Your task to perform on an android device: turn off location history Image 0: 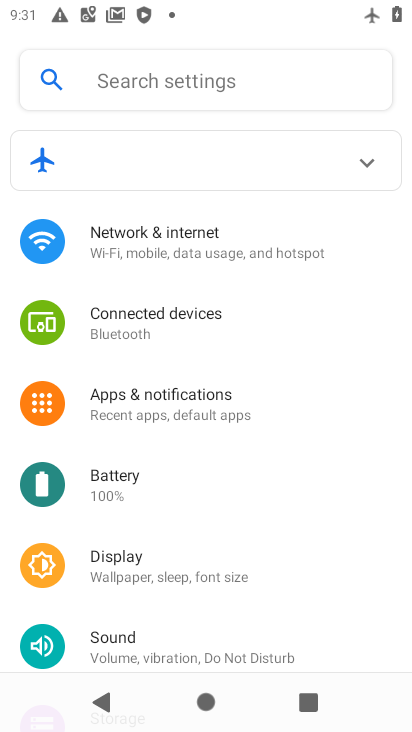
Step 0: drag from (176, 650) to (176, 228)
Your task to perform on an android device: turn off location history Image 1: 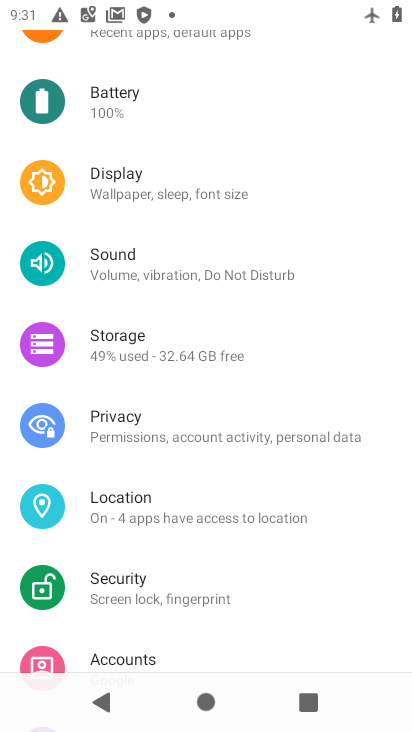
Step 1: click (152, 506)
Your task to perform on an android device: turn off location history Image 2: 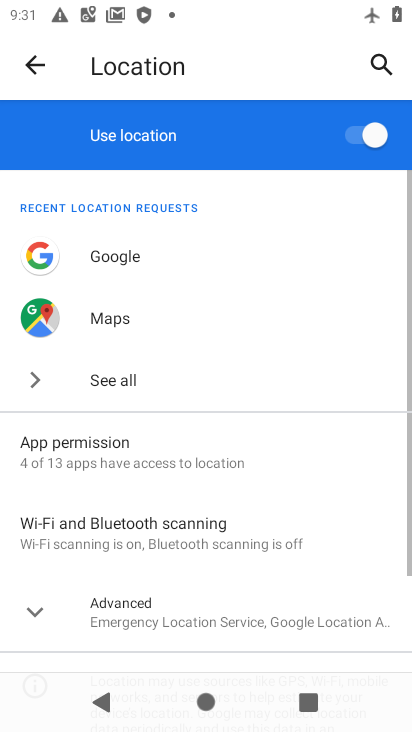
Step 2: click (120, 609)
Your task to perform on an android device: turn off location history Image 3: 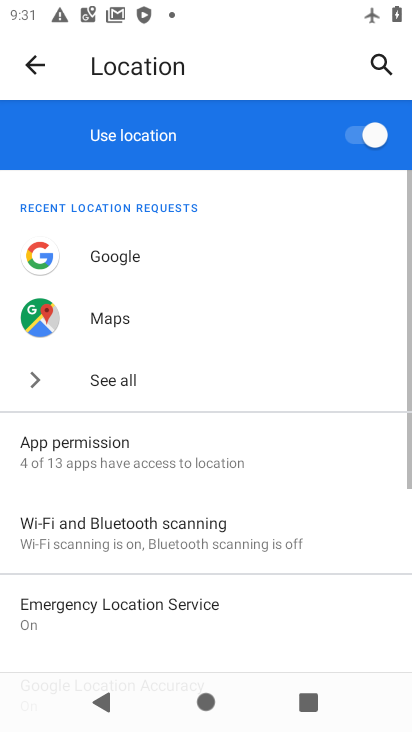
Step 3: drag from (167, 567) to (114, 170)
Your task to perform on an android device: turn off location history Image 4: 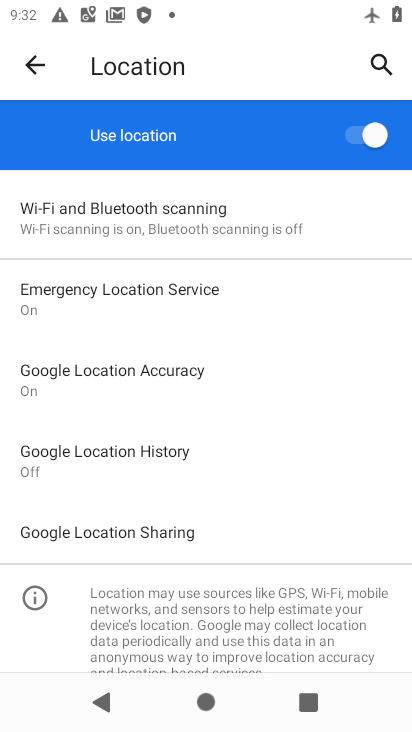
Step 4: click (139, 442)
Your task to perform on an android device: turn off location history Image 5: 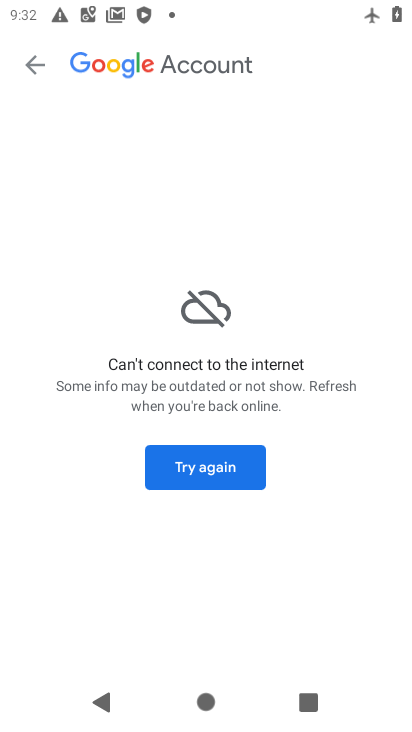
Step 5: click (199, 465)
Your task to perform on an android device: turn off location history Image 6: 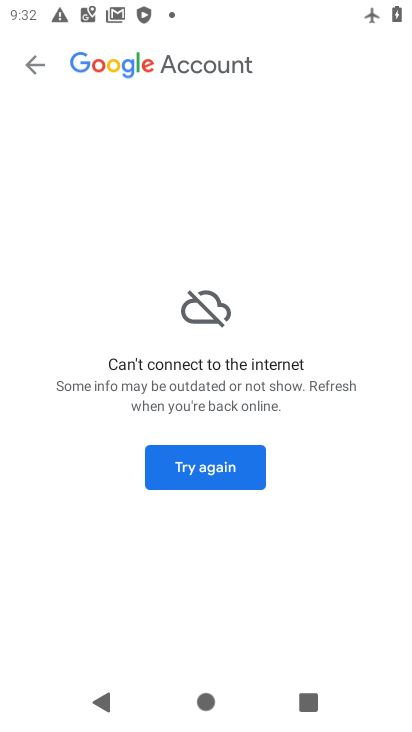
Step 6: click (183, 468)
Your task to perform on an android device: turn off location history Image 7: 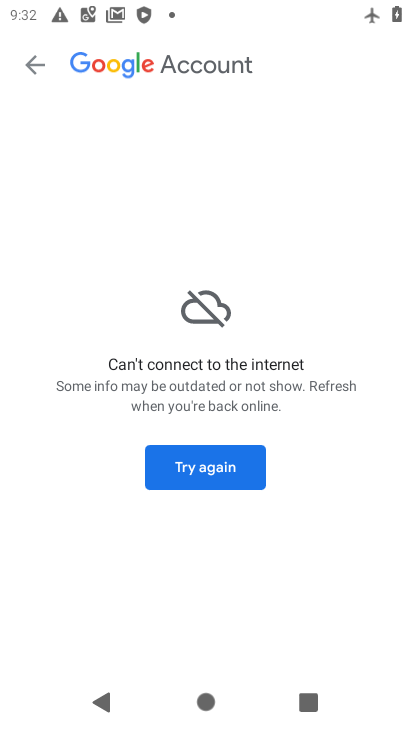
Step 7: task complete